Your task to perform on an android device: manage bookmarks in the chrome app Image 0: 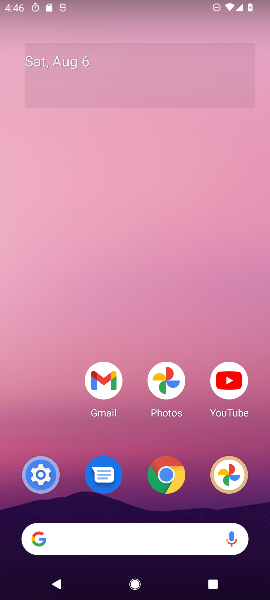
Step 0: click (165, 487)
Your task to perform on an android device: manage bookmarks in the chrome app Image 1: 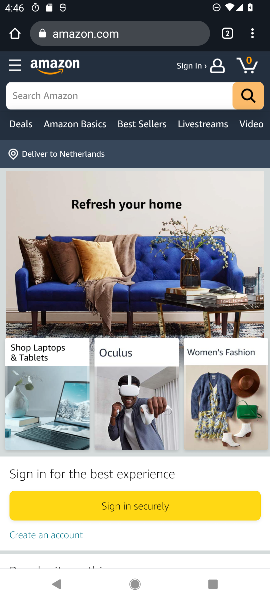
Step 1: click (254, 34)
Your task to perform on an android device: manage bookmarks in the chrome app Image 2: 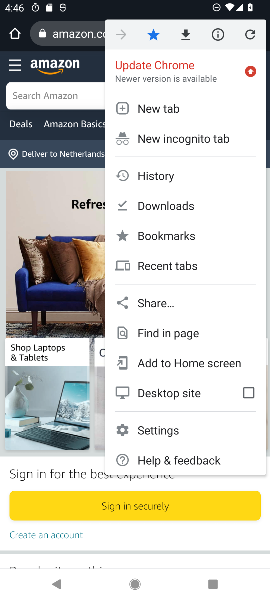
Step 2: click (157, 235)
Your task to perform on an android device: manage bookmarks in the chrome app Image 3: 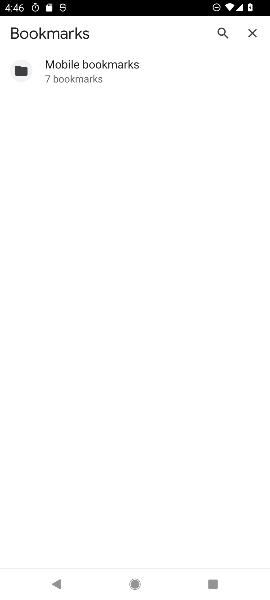
Step 3: task complete